Your task to perform on an android device: Open Maps and search for coffee Image 0: 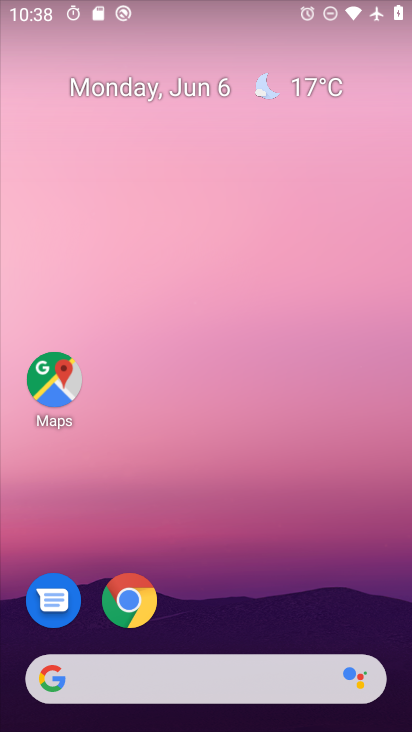
Step 0: click (57, 383)
Your task to perform on an android device: Open Maps and search for coffee Image 1: 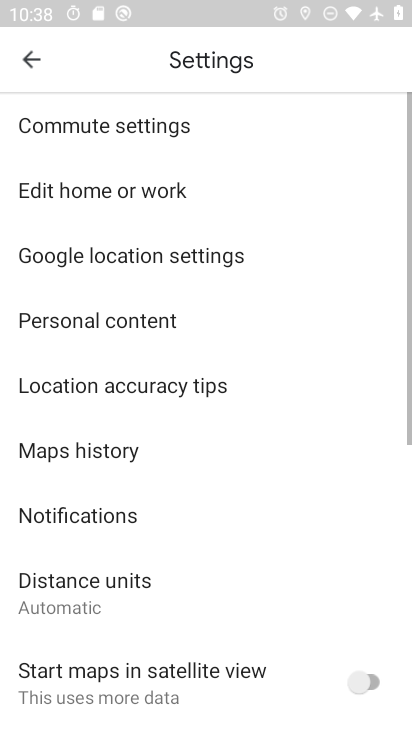
Step 1: click (26, 52)
Your task to perform on an android device: Open Maps and search for coffee Image 2: 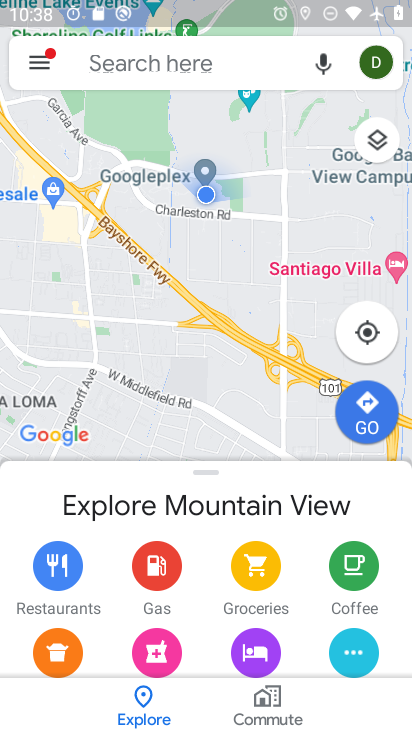
Step 2: click (216, 63)
Your task to perform on an android device: Open Maps and search for coffee Image 3: 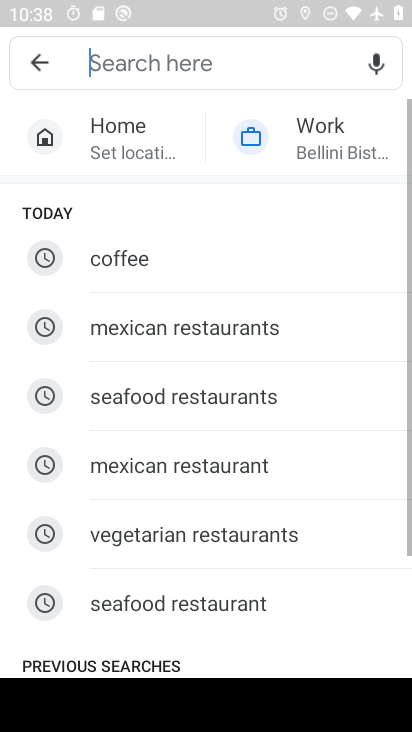
Step 3: click (147, 269)
Your task to perform on an android device: Open Maps and search for coffee Image 4: 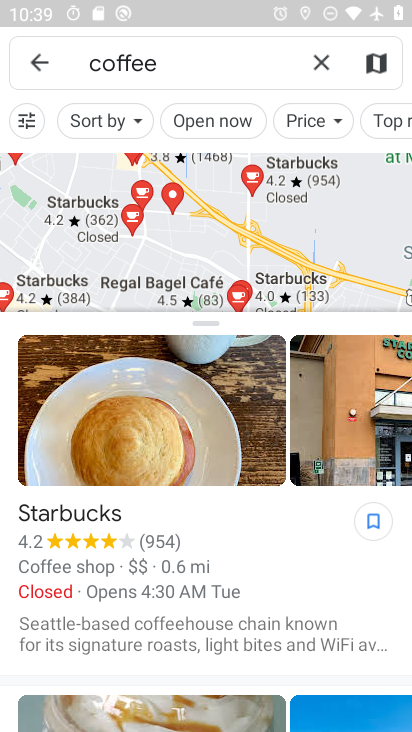
Step 4: task complete